Your task to perform on an android device: uninstall "Firefox Browser" Image 0: 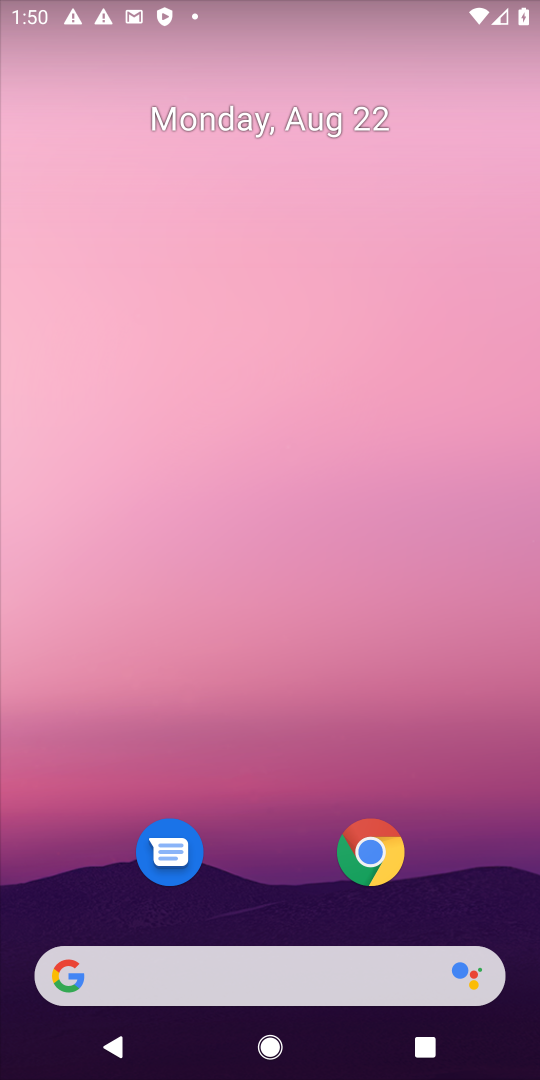
Step 0: drag from (270, 976) to (332, 163)
Your task to perform on an android device: uninstall "Firefox Browser" Image 1: 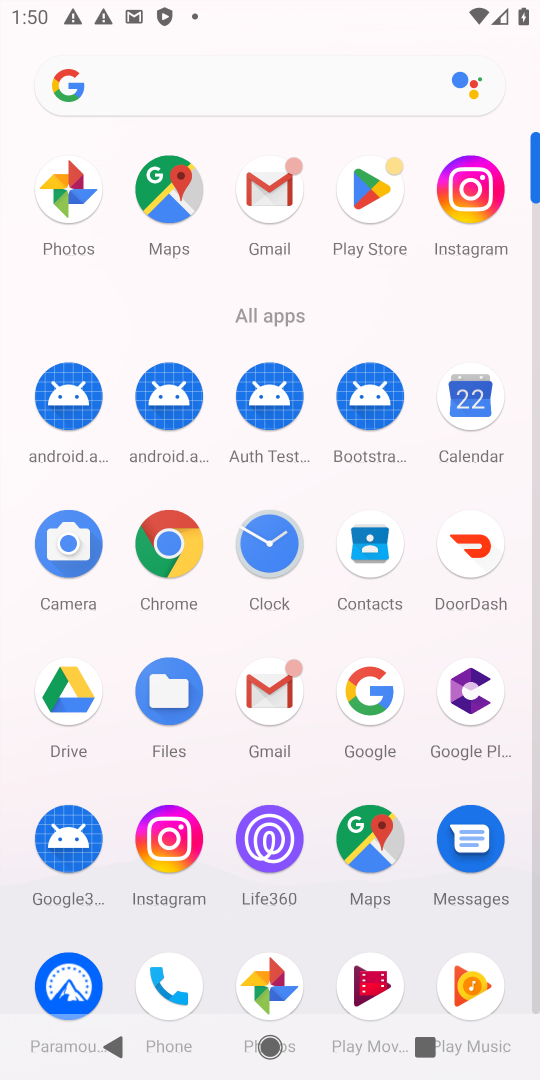
Step 1: click (361, 205)
Your task to perform on an android device: uninstall "Firefox Browser" Image 2: 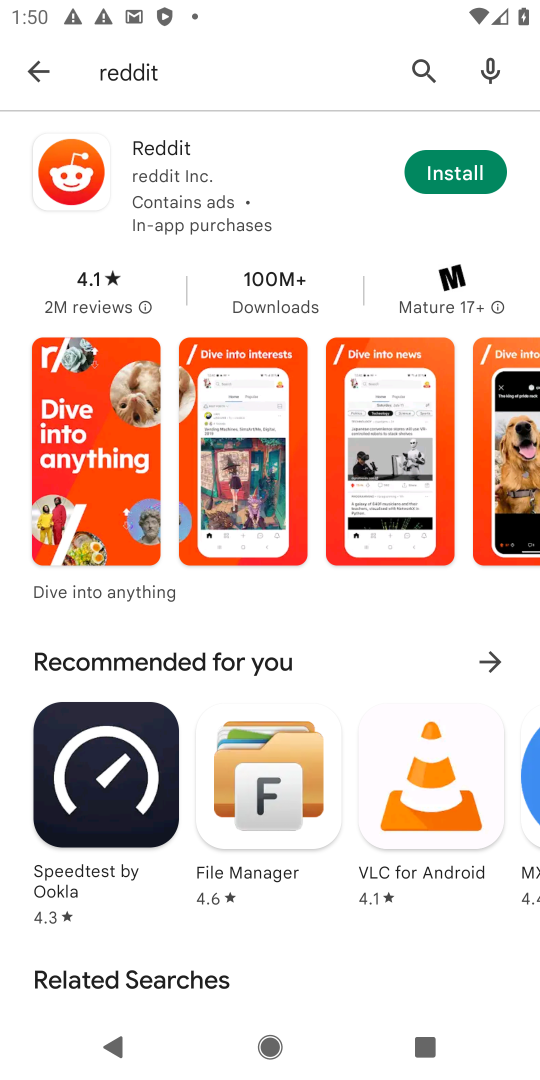
Step 2: click (421, 68)
Your task to perform on an android device: uninstall "Firefox Browser" Image 3: 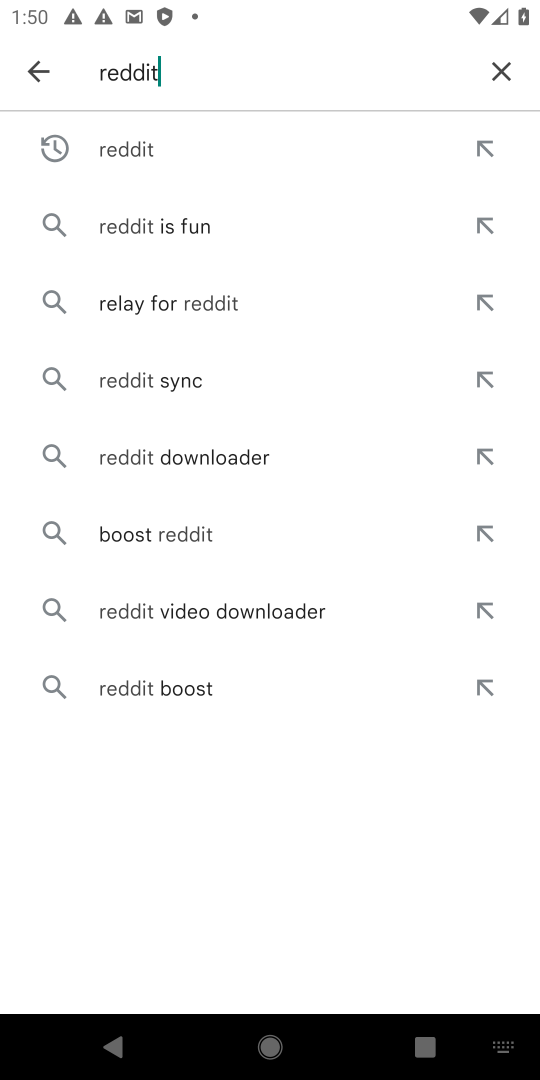
Step 3: click (492, 82)
Your task to perform on an android device: uninstall "Firefox Browser" Image 4: 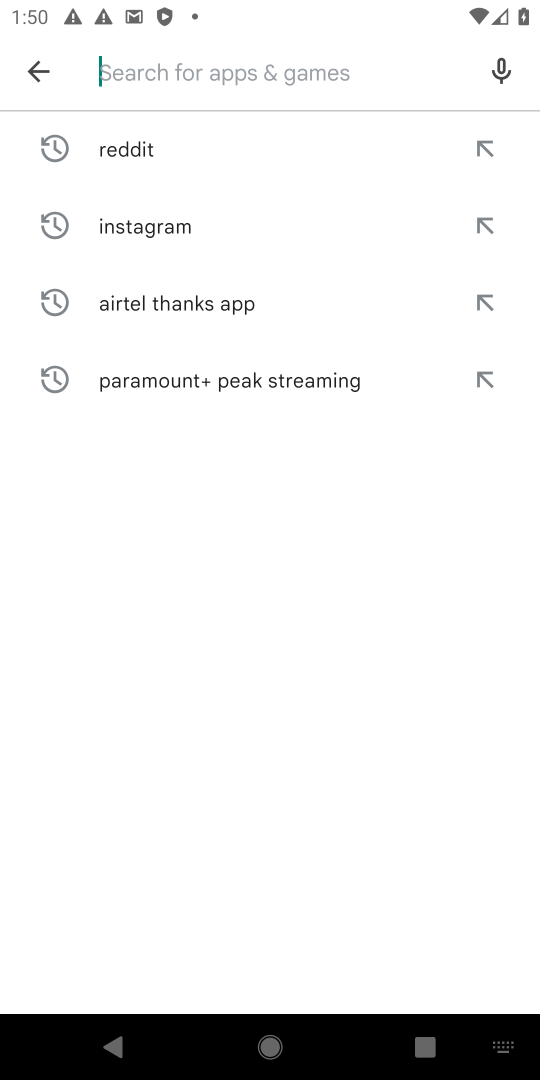
Step 4: type "firefox browser"
Your task to perform on an android device: uninstall "Firefox Browser" Image 5: 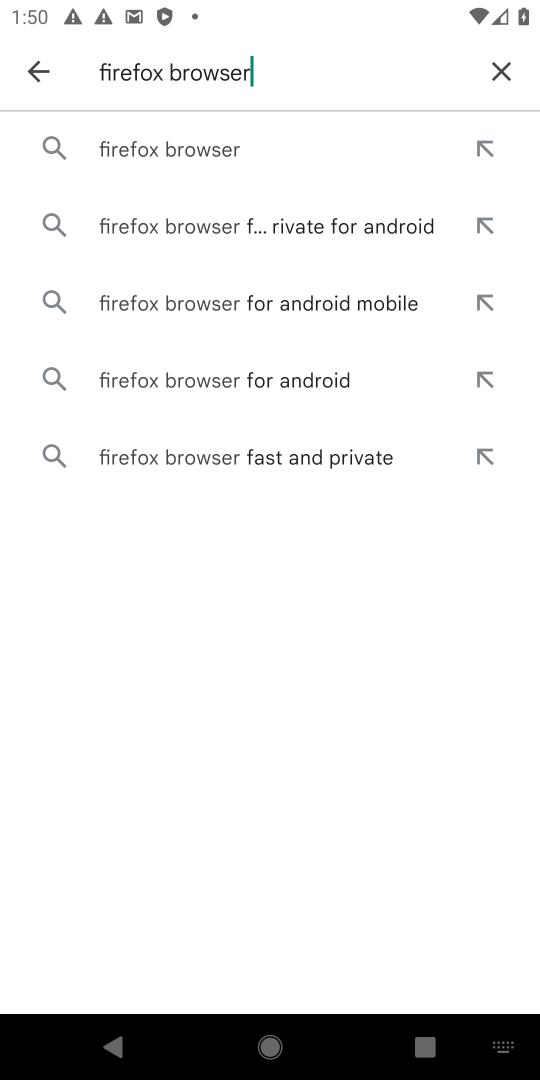
Step 5: click (227, 160)
Your task to perform on an android device: uninstall "Firefox Browser" Image 6: 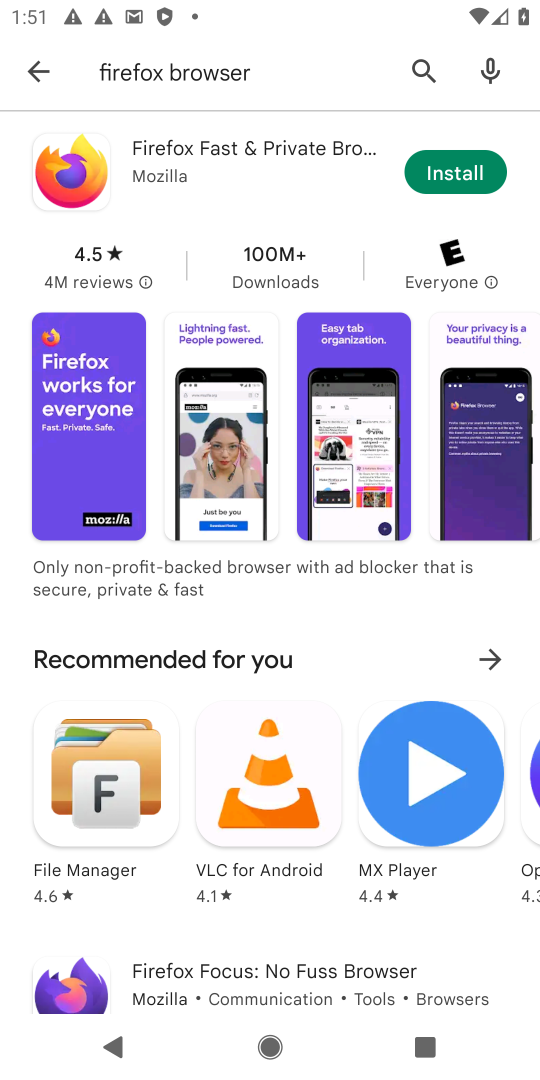
Step 6: task complete